Your task to perform on an android device: open app "Pinterest" (install if not already installed), go to login, and select forgot password Image 0: 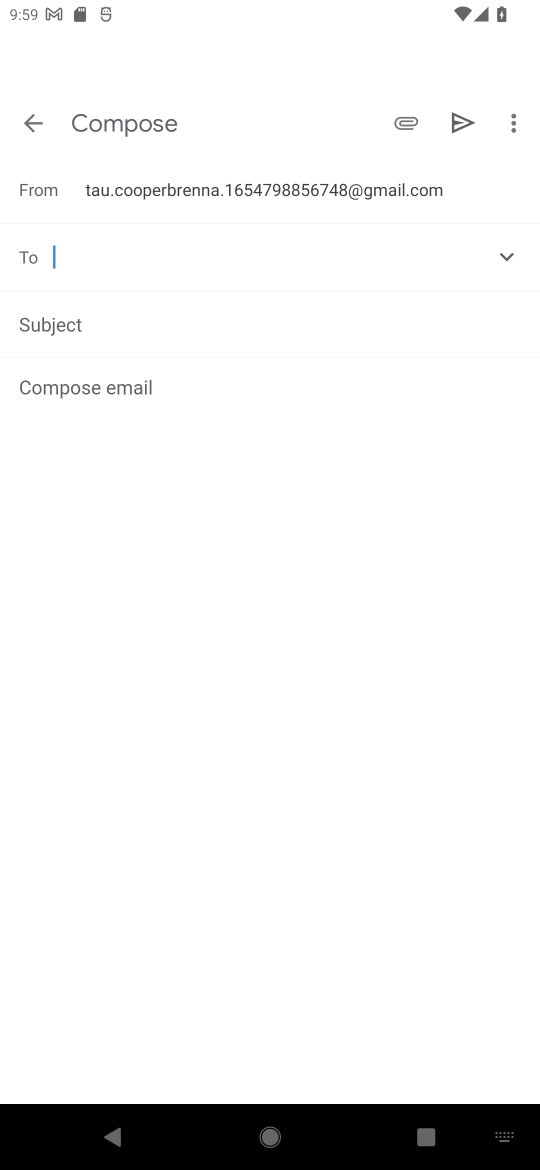
Step 0: press home button
Your task to perform on an android device: open app "Pinterest" (install if not already installed), go to login, and select forgot password Image 1: 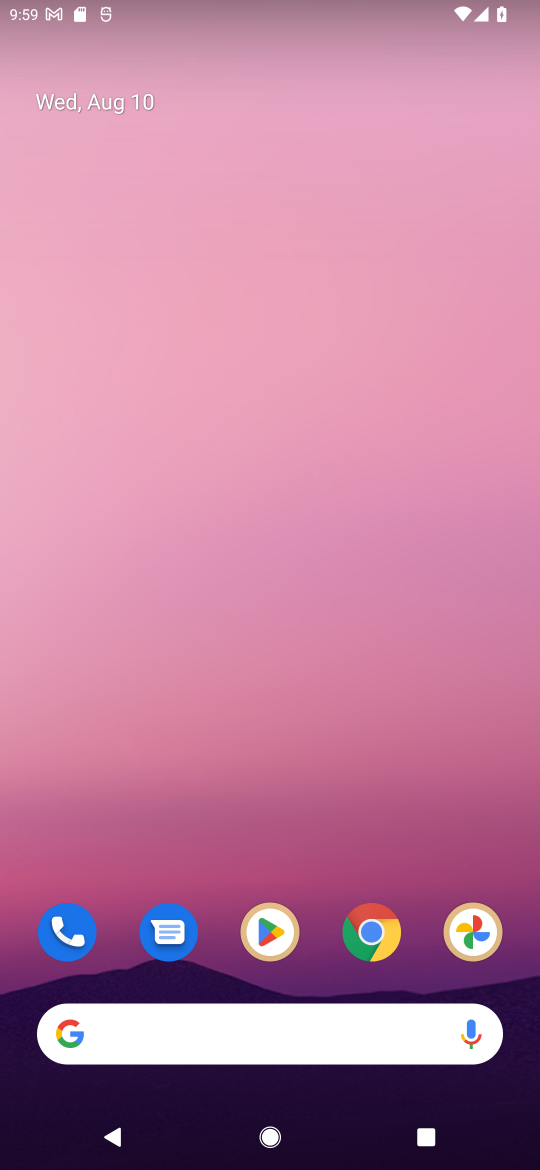
Step 1: click (266, 959)
Your task to perform on an android device: open app "Pinterest" (install if not already installed), go to login, and select forgot password Image 2: 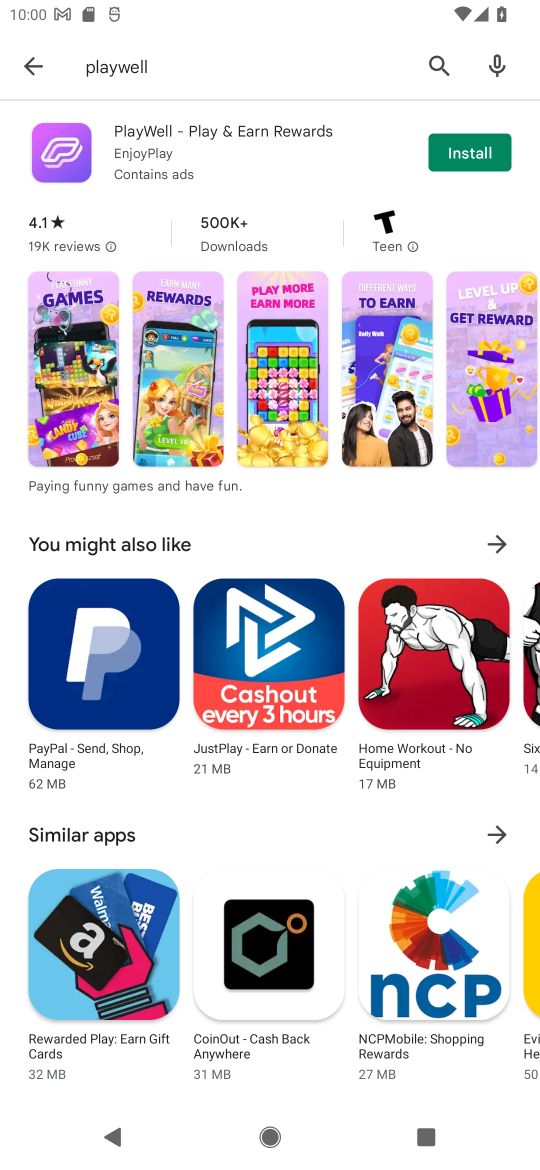
Step 2: click (437, 56)
Your task to perform on an android device: open app "Pinterest" (install if not already installed), go to login, and select forgot password Image 3: 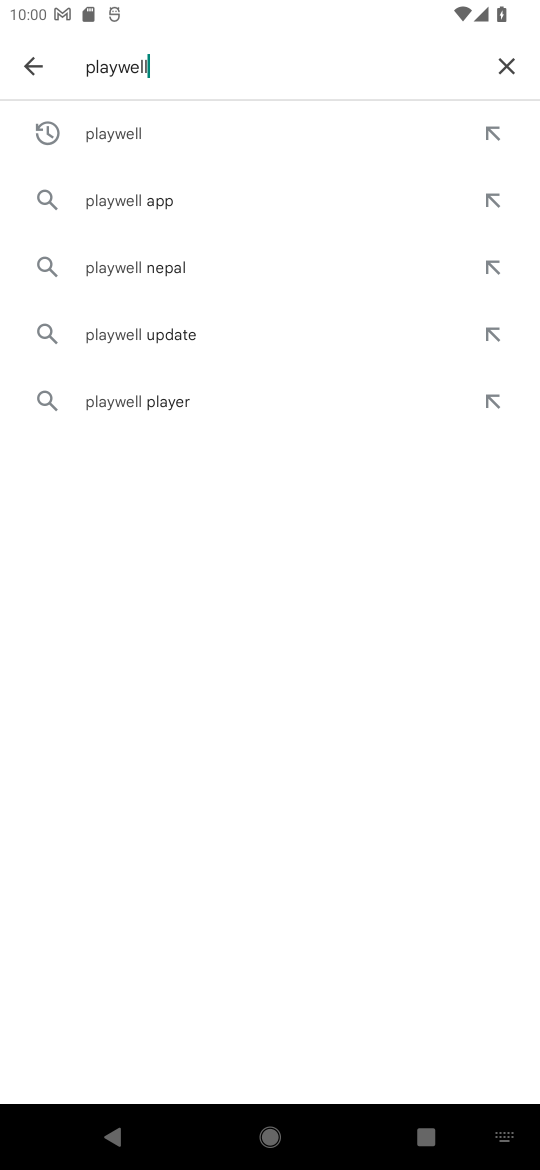
Step 3: click (501, 61)
Your task to perform on an android device: open app "Pinterest" (install if not already installed), go to login, and select forgot password Image 4: 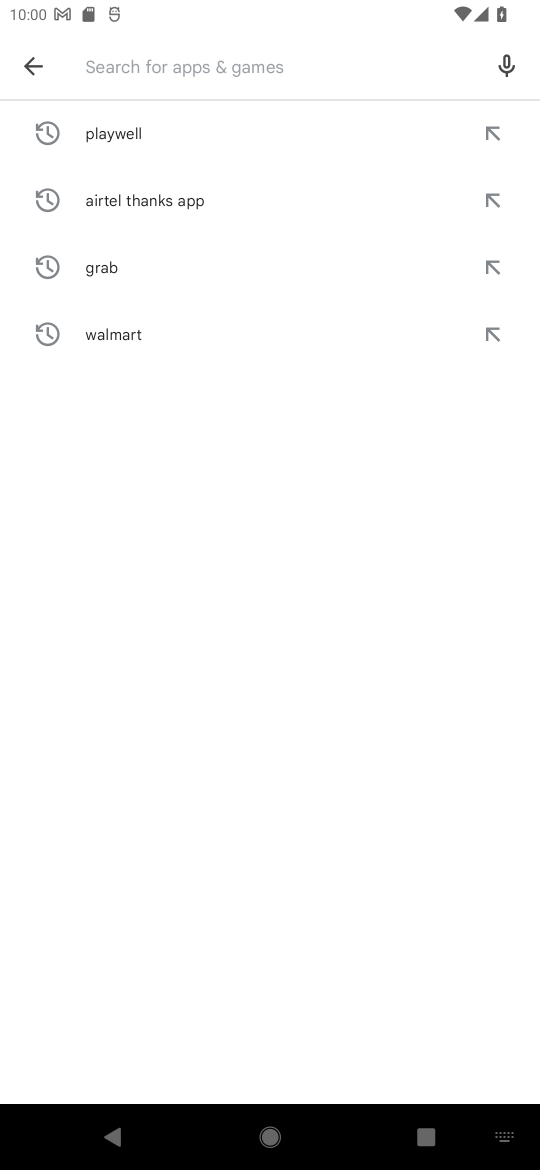
Step 4: type "pinterest"
Your task to perform on an android device: open app "Pinterest" (install if not already installed), go to login, and select forgot password Image 5: 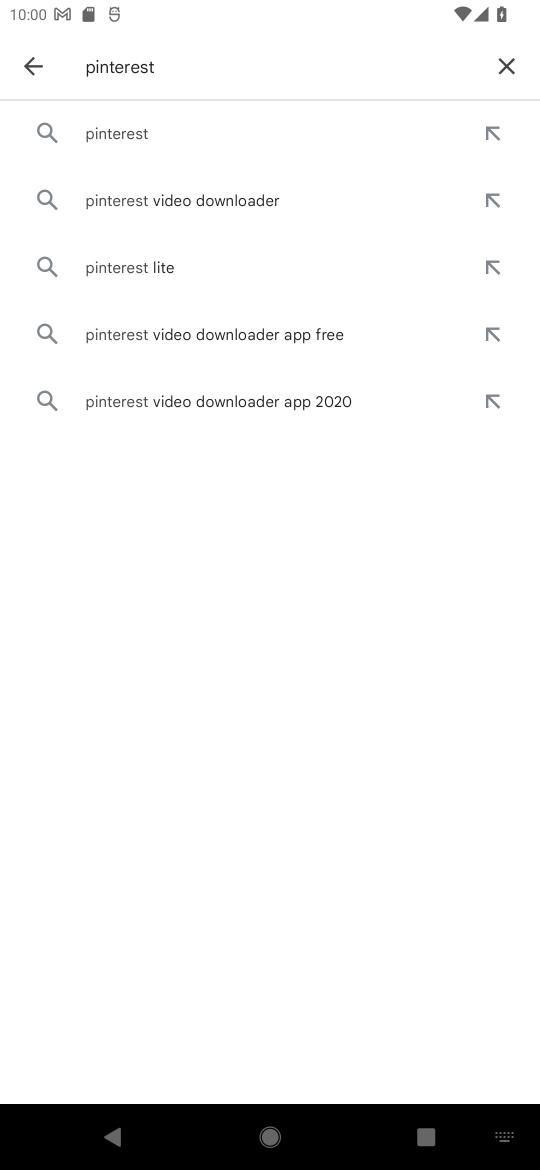
Step 5: click (132, 130)
Your task to perform on an android device: open app "Pinterest" (install if not already installed), go to login, and select forgot password Image 6: 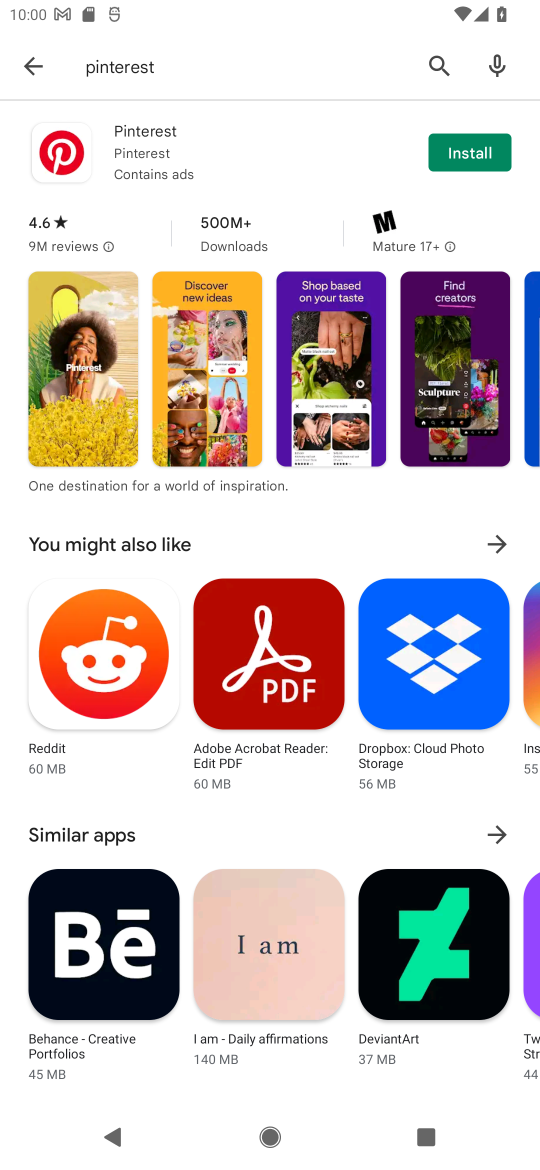
Step 6: click (471, 152)
Your task to perform on an android device: open app "Pinterest" (install if not already installed), go to login, and select forgot password Image 7: 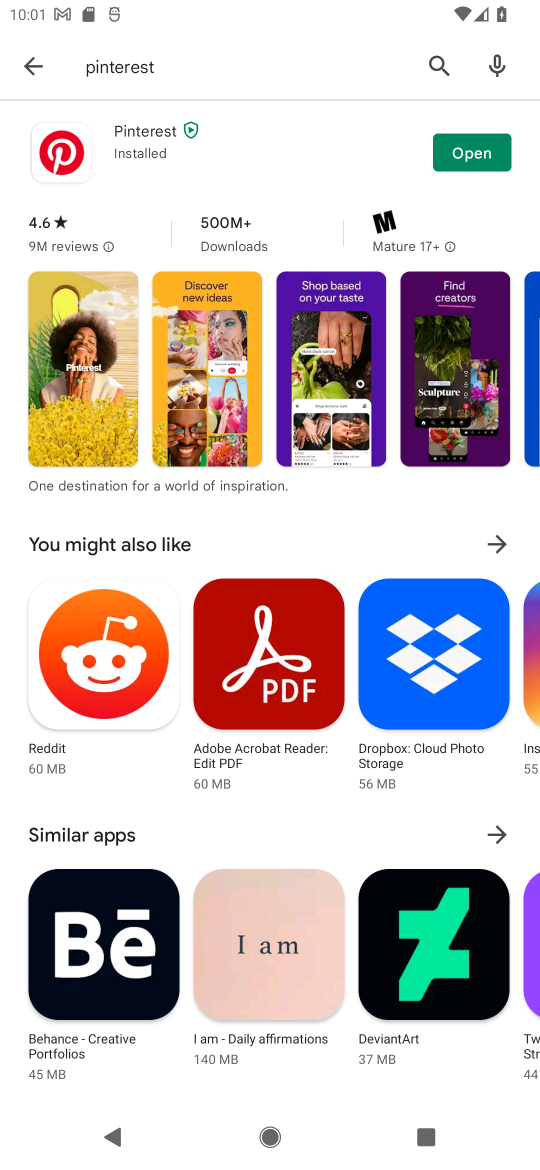
Step 7: click (482, 147)
Your task to perform on an android device: open app "Pinterest" (install if not already installed), go to login, and select forgot password Image 8: 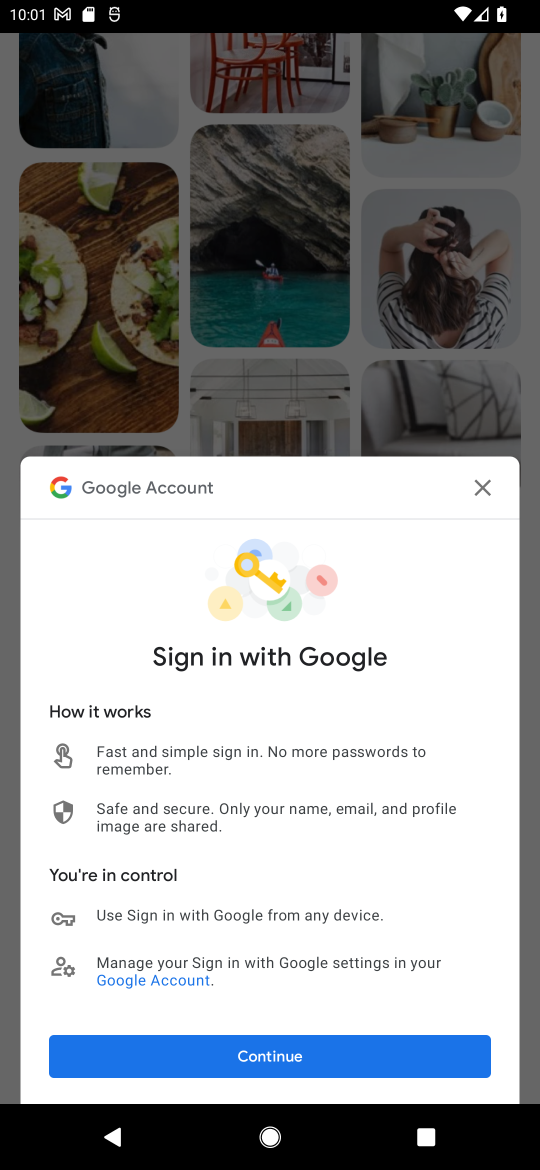
Step 8: click (443, 1064)
Your task to perform on an android device: open app "Pinterest" (install if not already installed), go to login, and select forgot password Image 9: 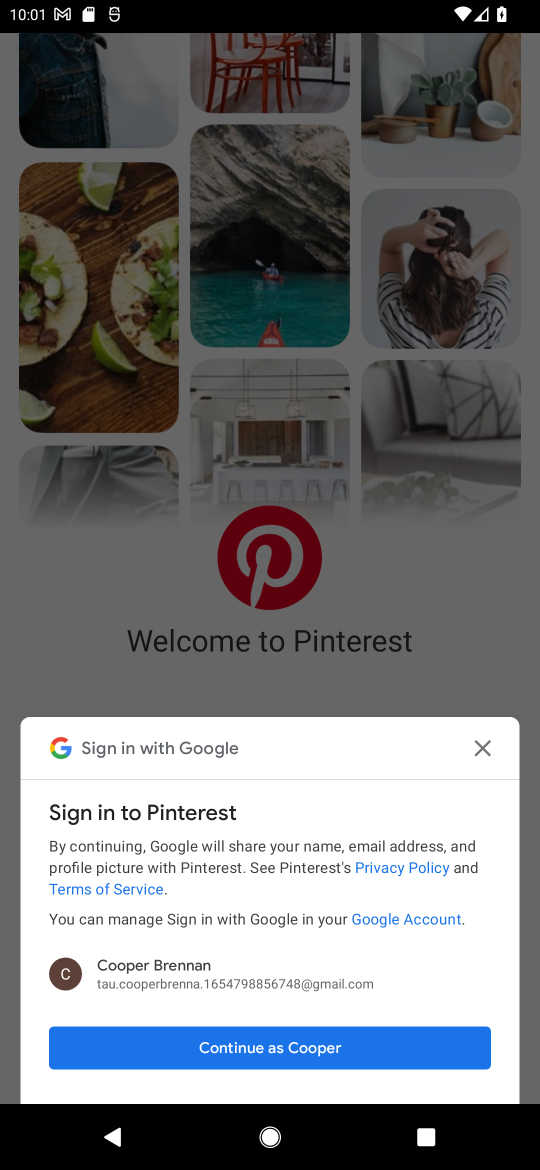
Step 9: click (483, 751)
Your task to perform on an android device: open app "Pinterest" (install if not already installed), go to login, and select forgot password Image 10: 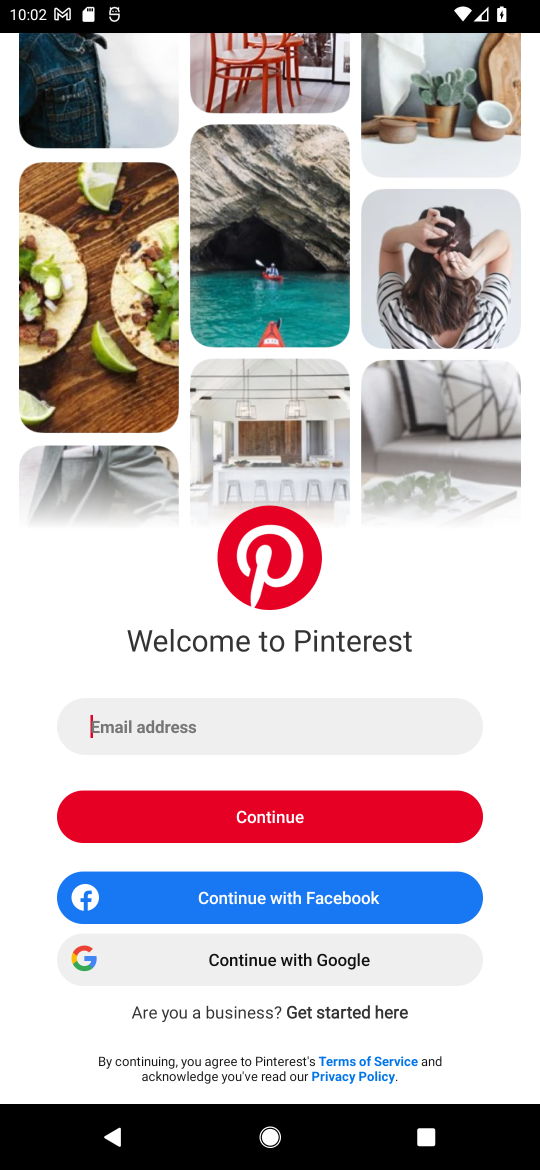
Step 10: click (334, 718)
Your task to perform on an android device: open app "Pinterest" (install if not already installed), go to login, and select forgot password Image 11: 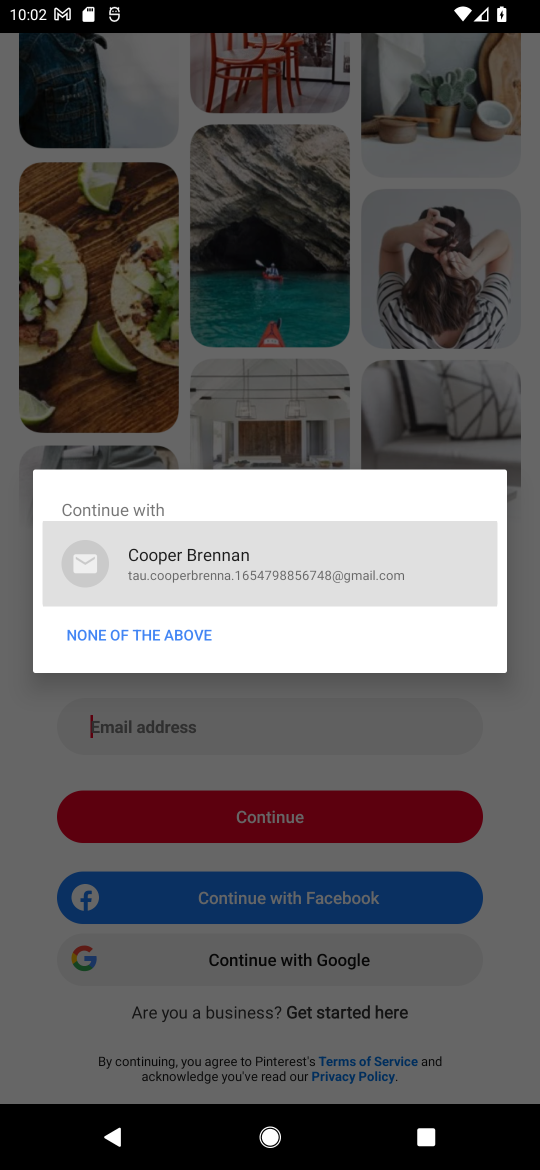
Step 11: click (385, 810)
Your task to perform on an android device: open app "Pinterest" (install if not already installed), go to login, and select forgot password Image 12: 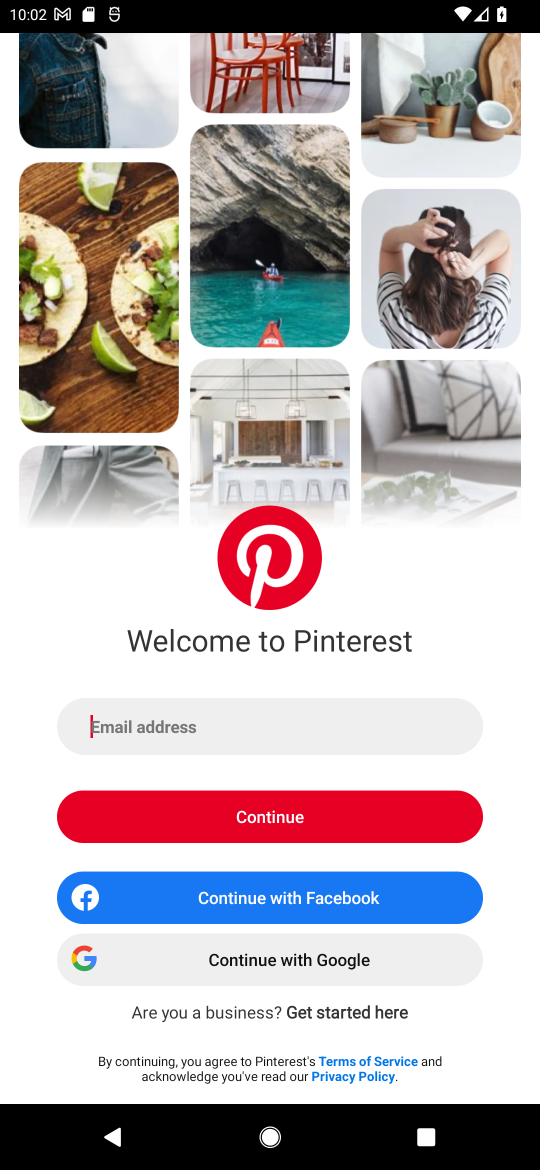
Step 12: click (413, 817)
Your task to perform on an android device: open app "Pinterest" (install if not already installed), go to login, and select forgot password Image 13: 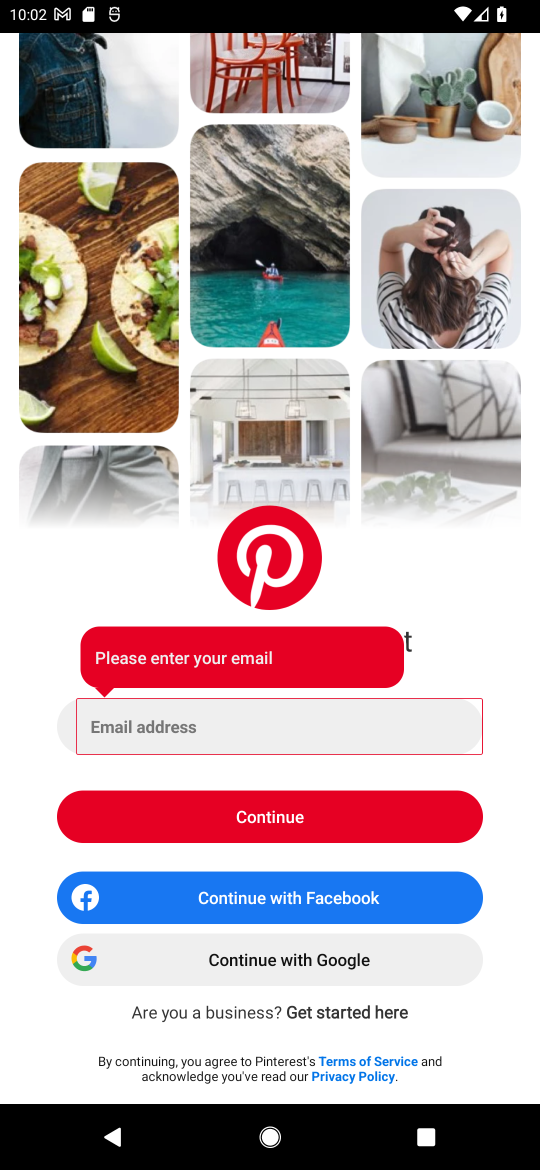
Step 13: task complete